Your task to perform on an android device: turn off location Image 0: 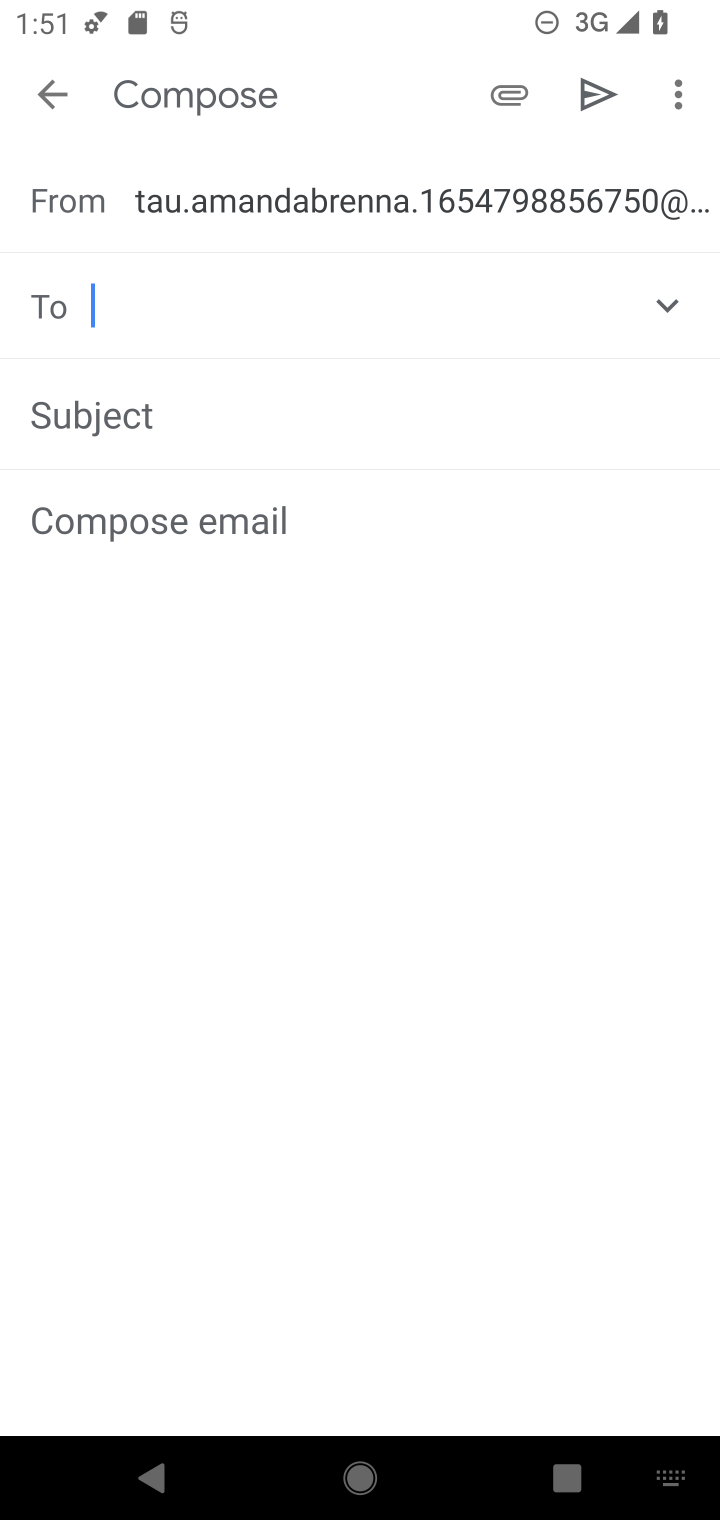
Step 0: press home button
Your task to perform on an android device: turn off location Image 1: 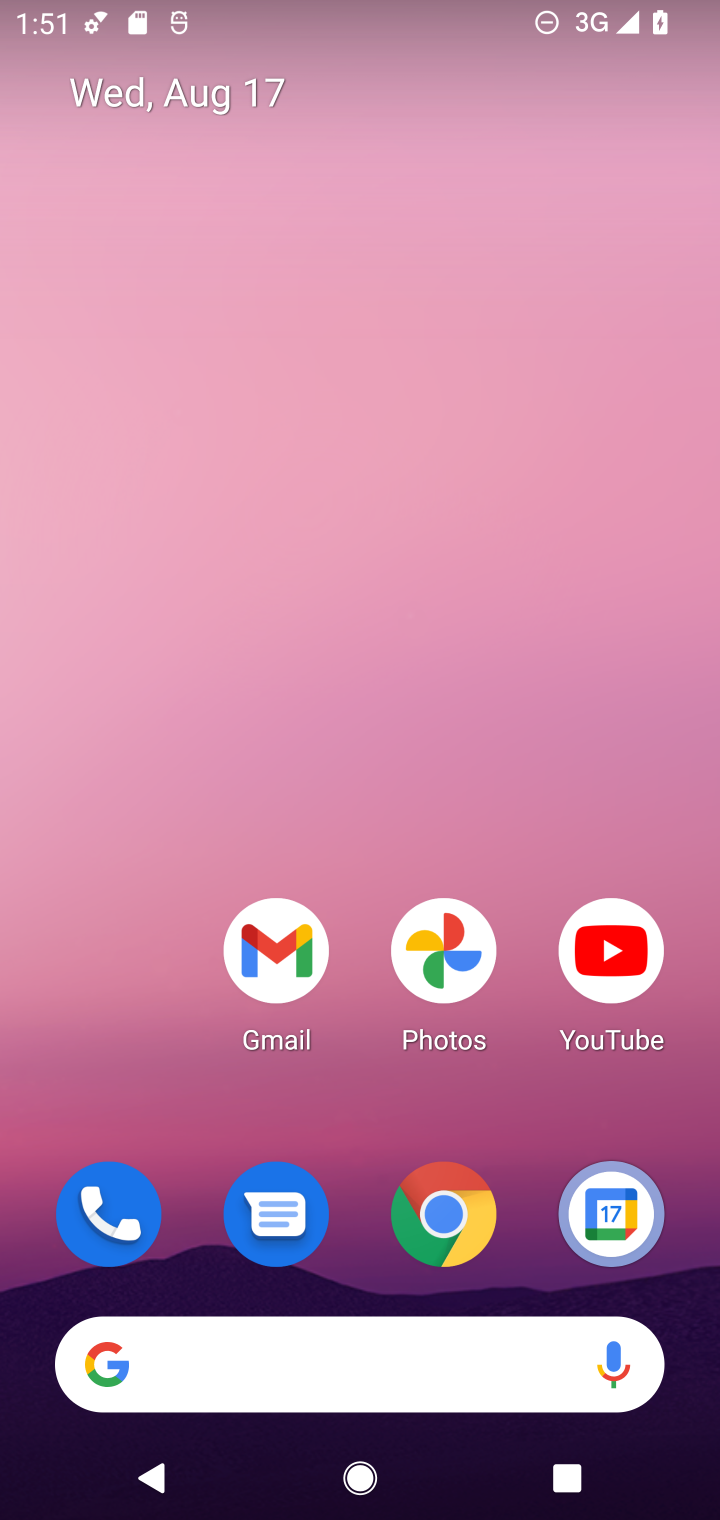
Step 1: drag from (374, 1189) to (269, 340)
Your task to perform on an android device: turn off location Image 2: 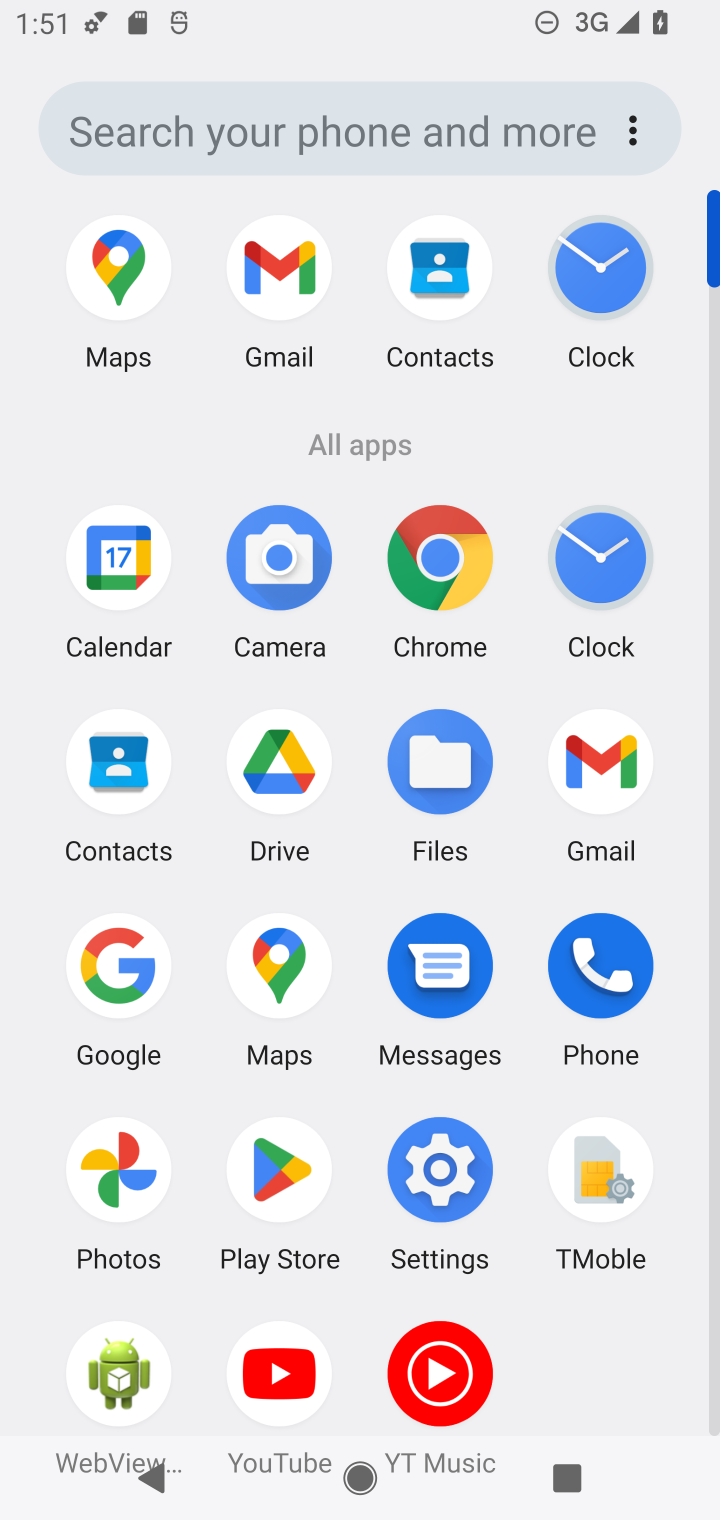
Step 2: click (439, 1174)
Your task to perform on an android device: turn off location Image 3: 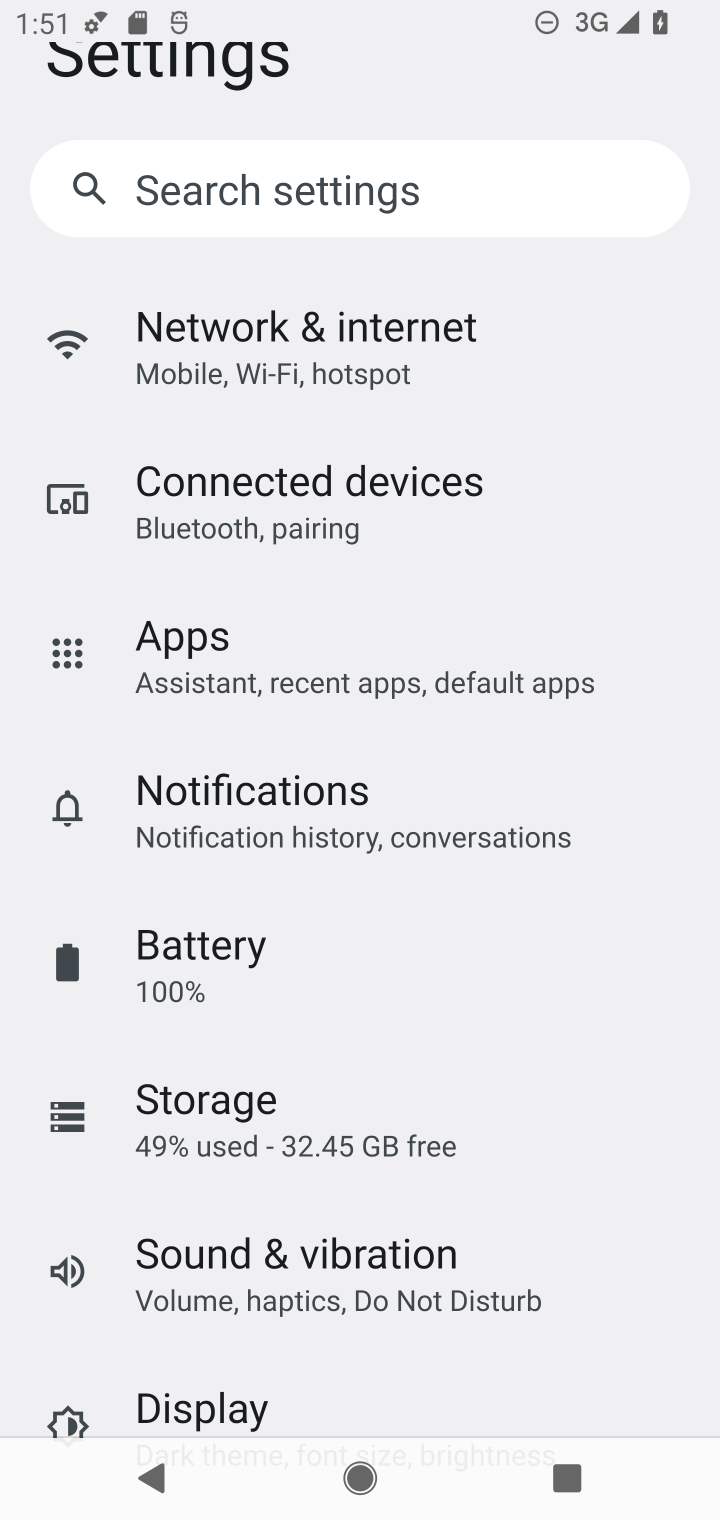
Step 3: drag from (390, 1060) to (301, 325)
Your task to perform on an android device: turn off location Image 4: 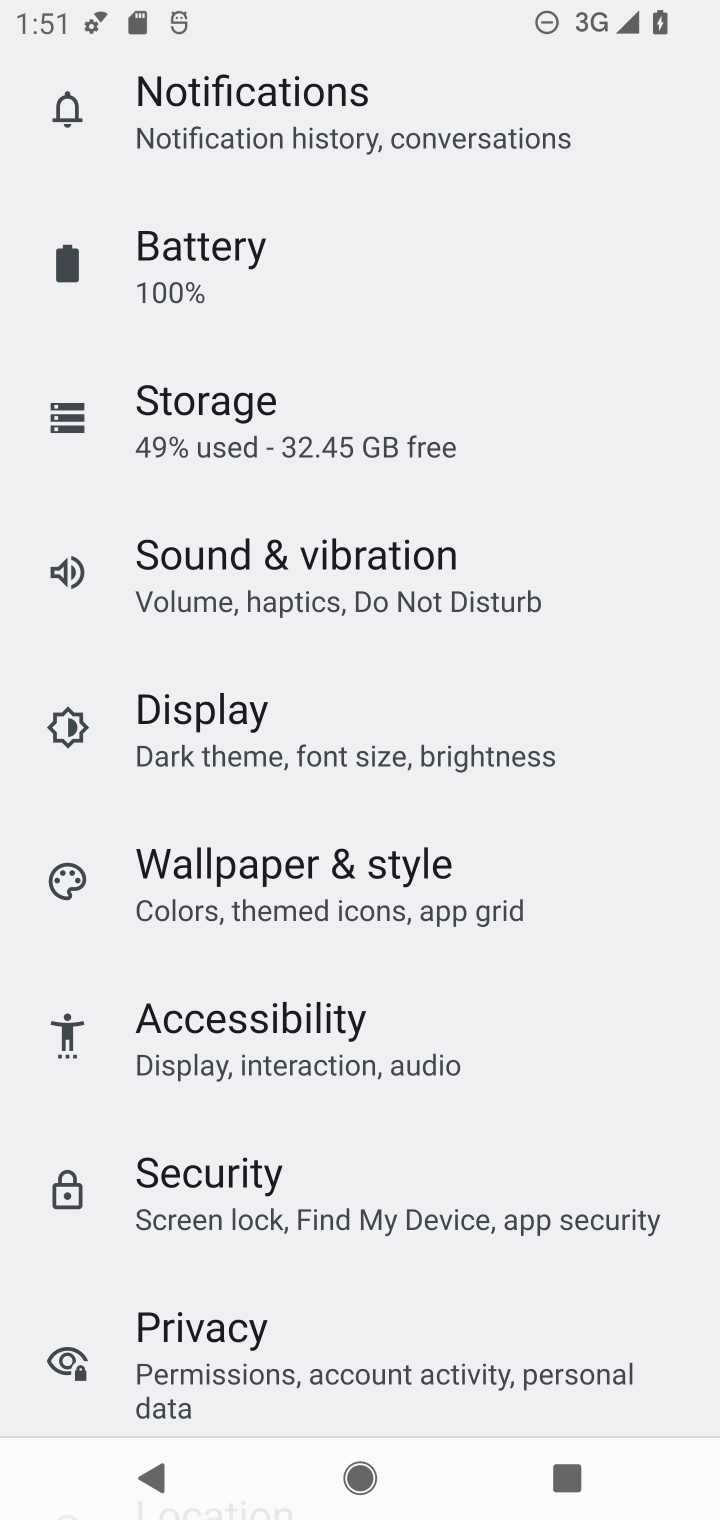
Step 4: drag from (366, 1318) to (389, 596)
Your task to perform on an android device: turn off location Image 5: 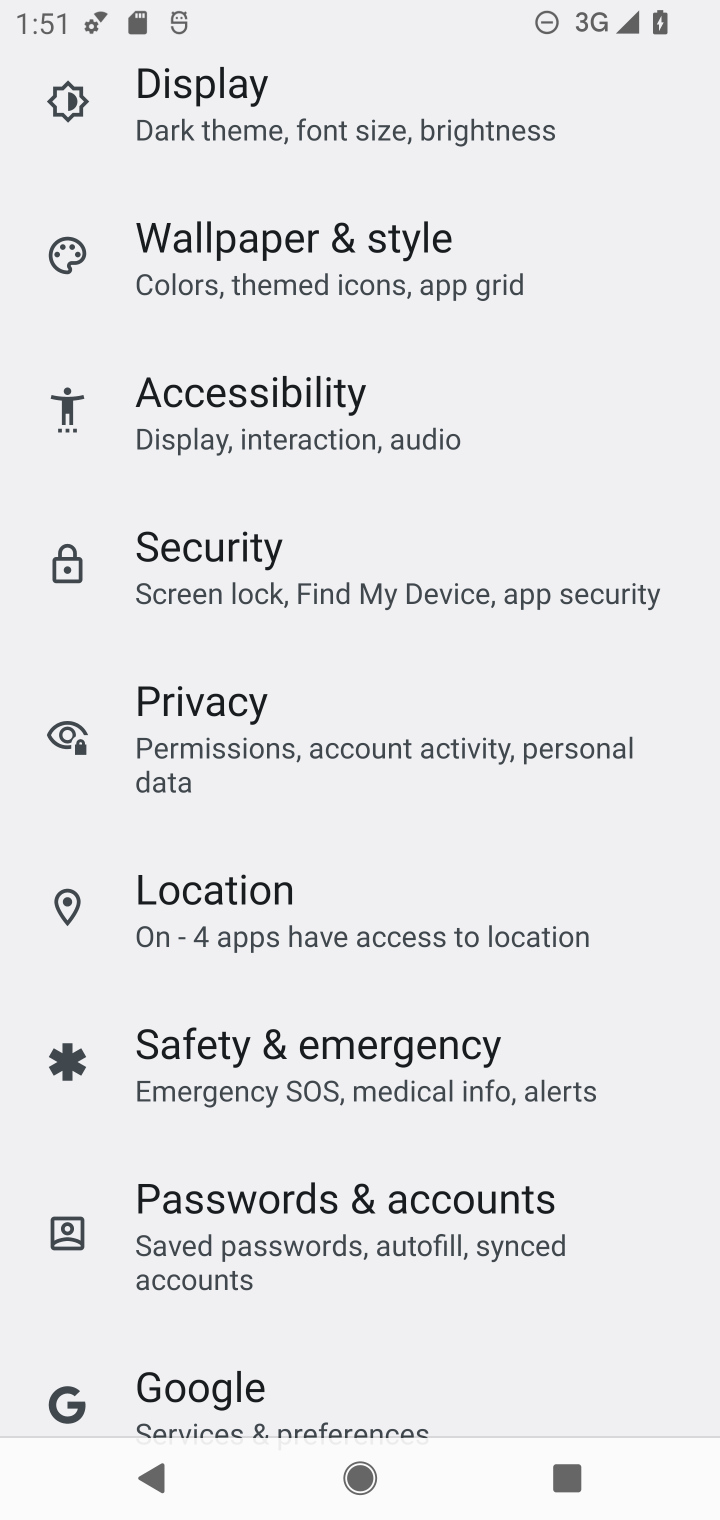
Step 5: click (216, 885)
Your task to perform on an android device: turn off location Image 6: 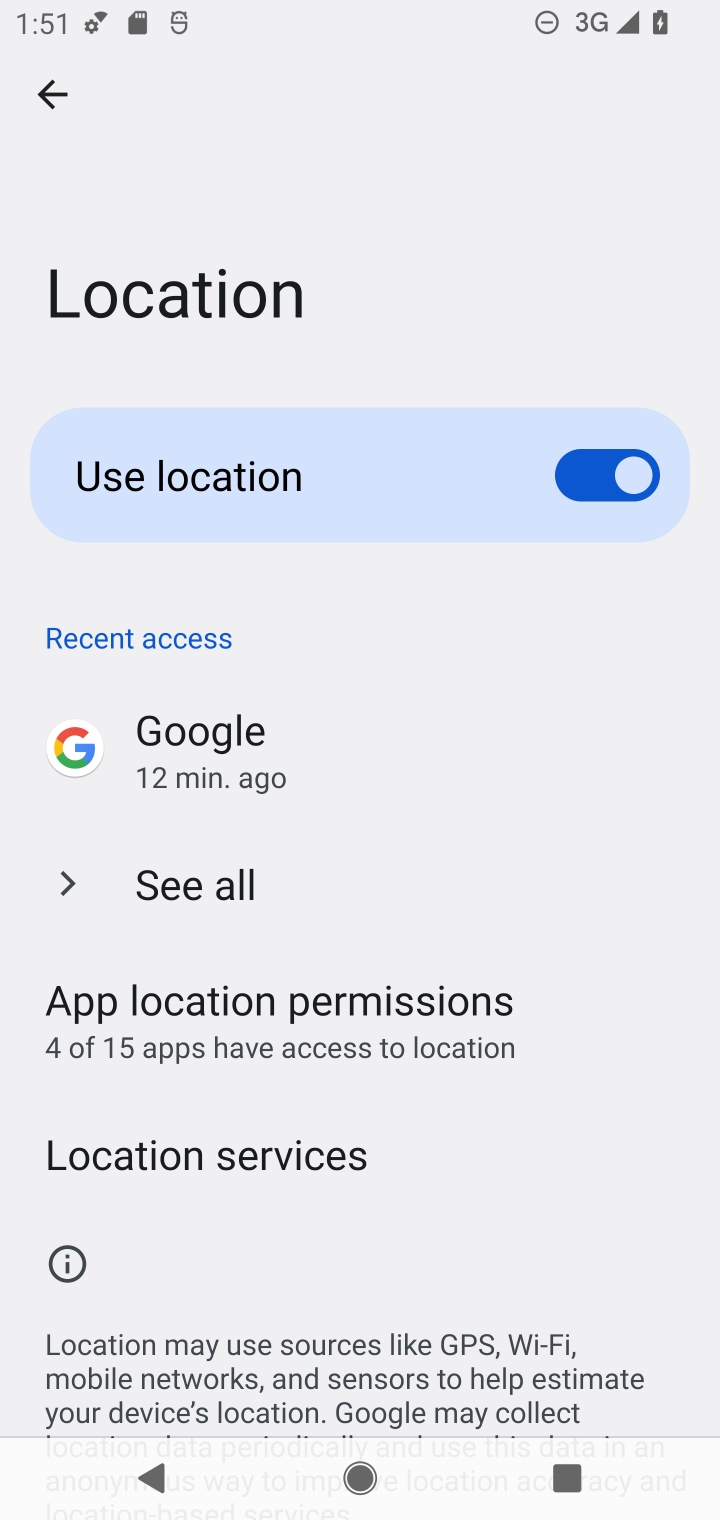
Step 6: click (620, 461)
Your task to perform on an android device: turn off location Image 7: 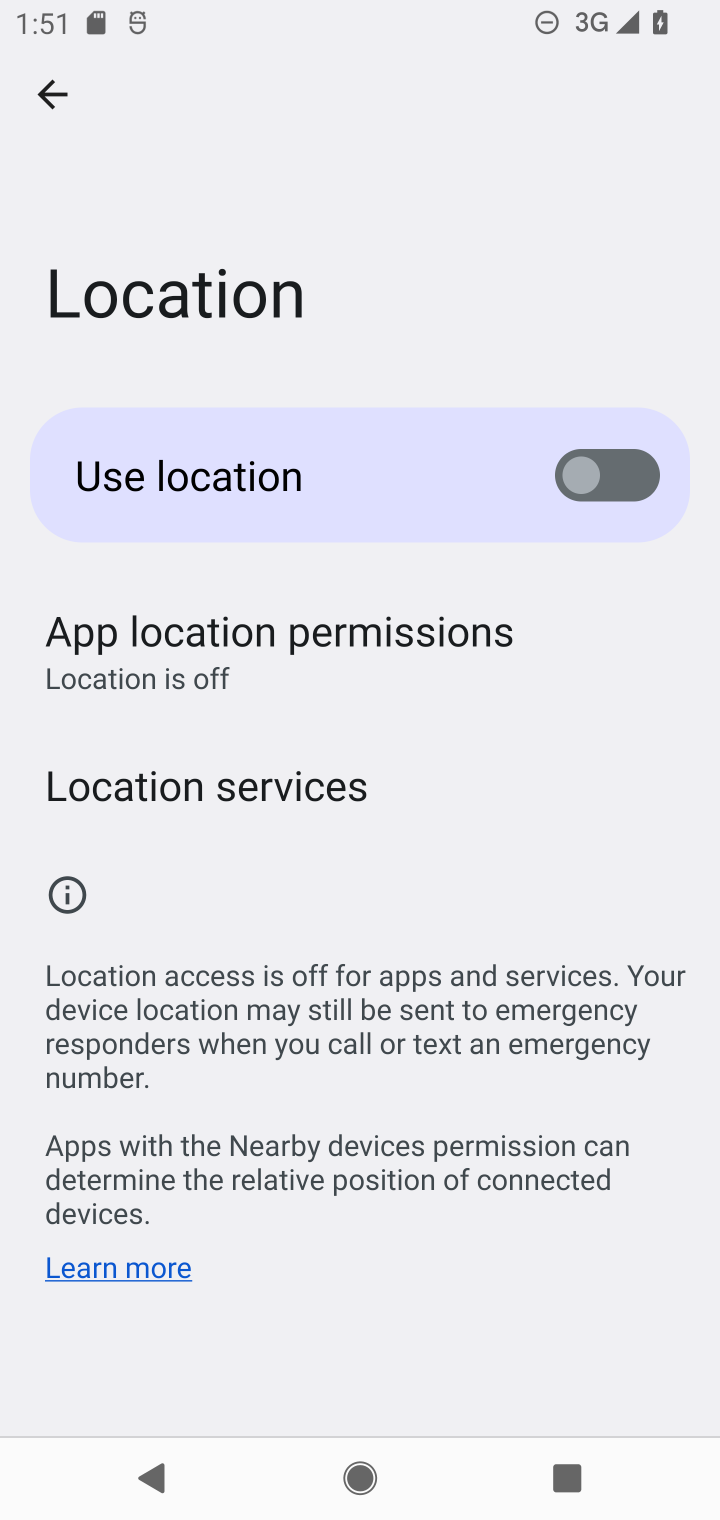
Step 7: task complete